Your task to perform on an android device: Open calendar and show me the first week of next month Image 0: 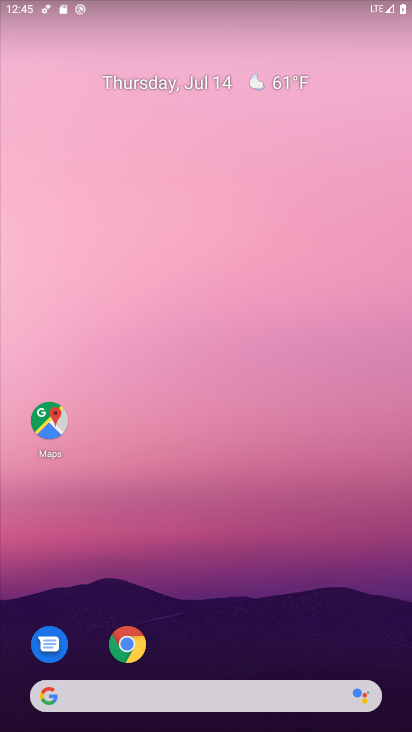
Step 0: drag from (249, 549) to (238, 116)
Your task to perform on an android device: Open calendar and show me the first week of next month Image 1: 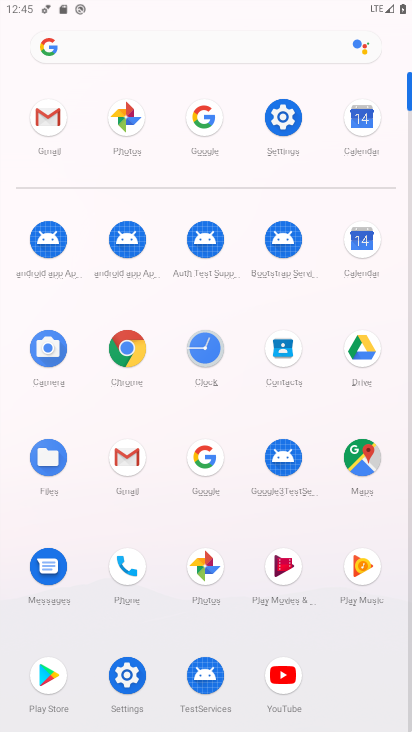
Step 1: click (366, 127)
Your task to perform on an android device: Open calendar and show me the first week of next month Image 2: 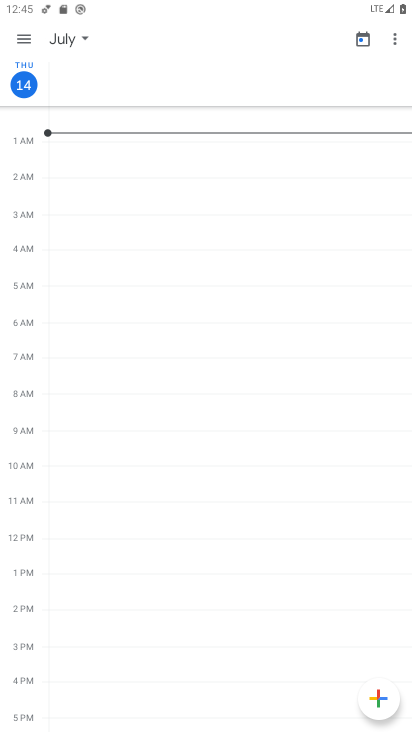
Step 2: click (72, 36)
Your task to perform on an android device: Open calendar and show me the first week of next month Image 3: 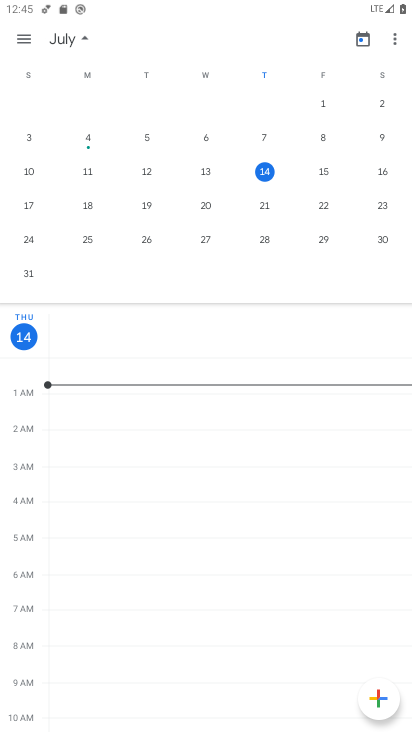
Step 3: task complete